Your task to perform on an android device: Check the weather Image 0: 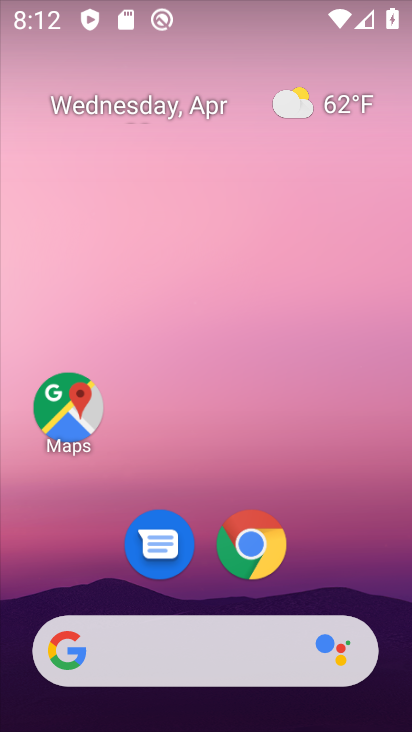
Step 0: click (265, 539)
Your task to perform on an android device: Check the weather Image 1: 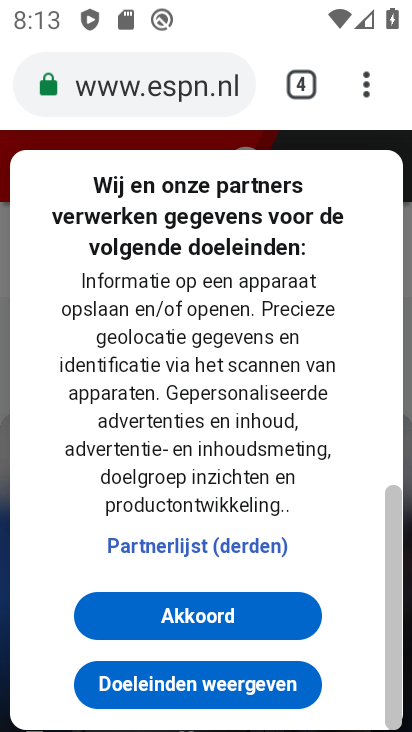
Step 1: click (307, 91)
Your task to perform on an android device: Check the weather Image 2: 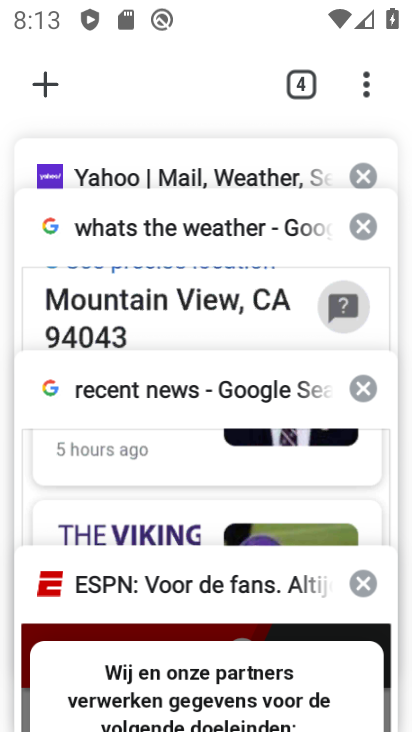
Step 2: click (38, 80)
Your task to perform on an android device: Check the weather Image 3: 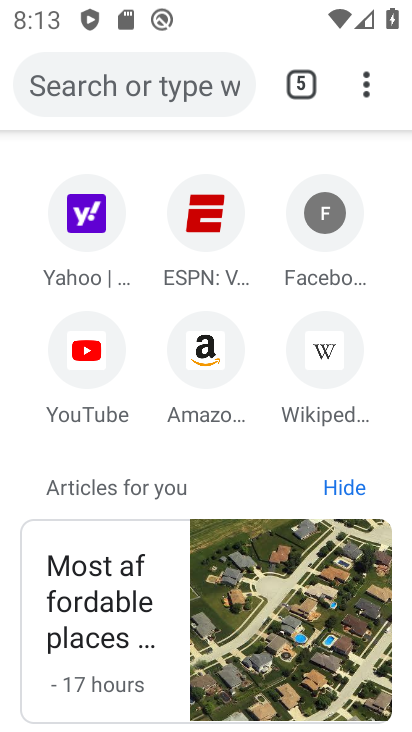
Step 3: click (146, 91)
Your task to perform on an android device: Check the weather Image 4: 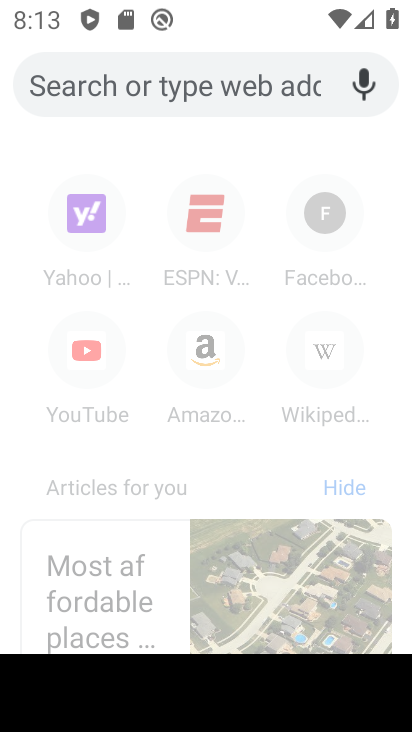
Step 4: type "weather"
Your task to perform on an android device: Check the weather Image 5: 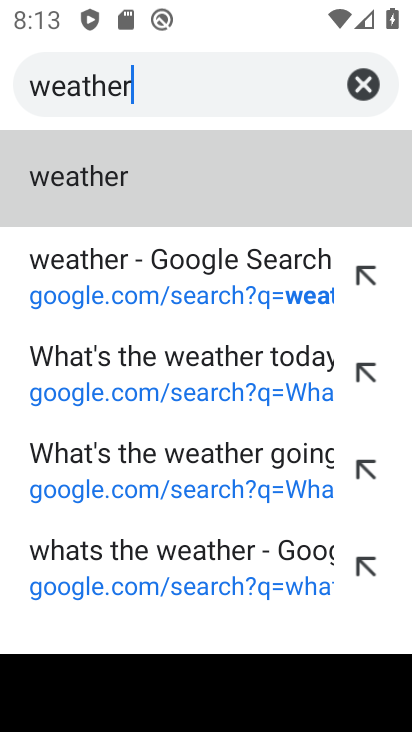
Step 5: click (105, 188)
Your task to perform on an android device: Check the weather Image 6: 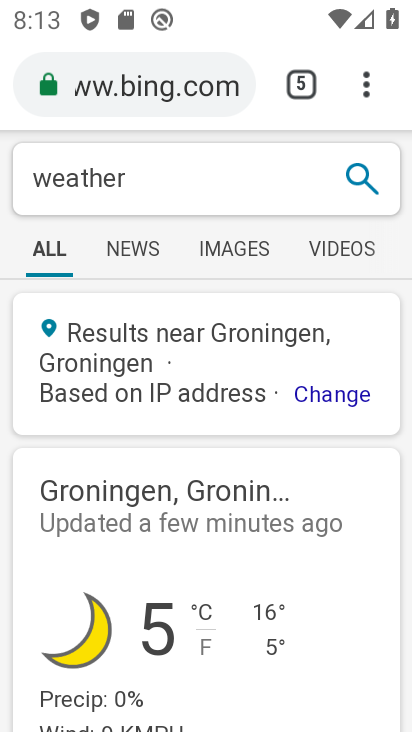
Step 6: drag from (223, 669) to (234, 299)
Your task to perform on an android device: Check the weather Image 7: 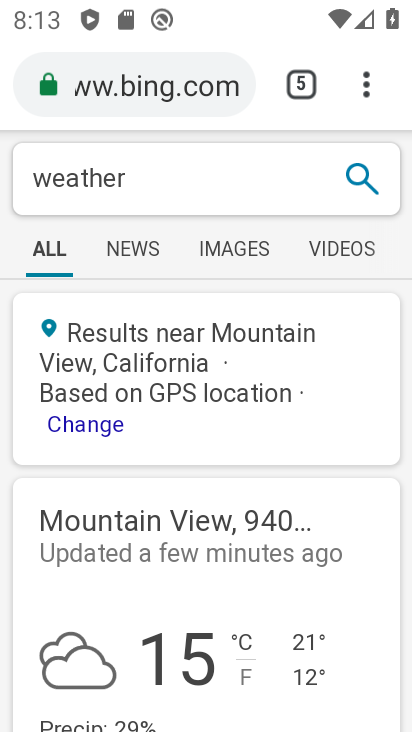
Step 7: drag from (368, 548) to (339, 280)
Your task to perform on an android device: Check the weather Image 8: 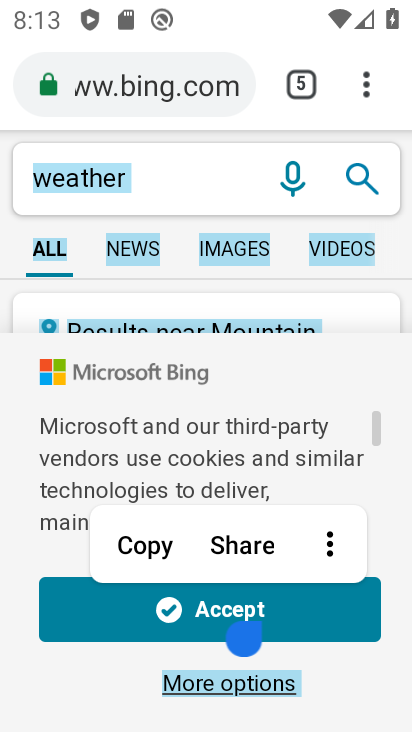
Step 8: drag from (395, 289) to (398, 120)
Your task to perform on an android device: Check the weather Image 9: 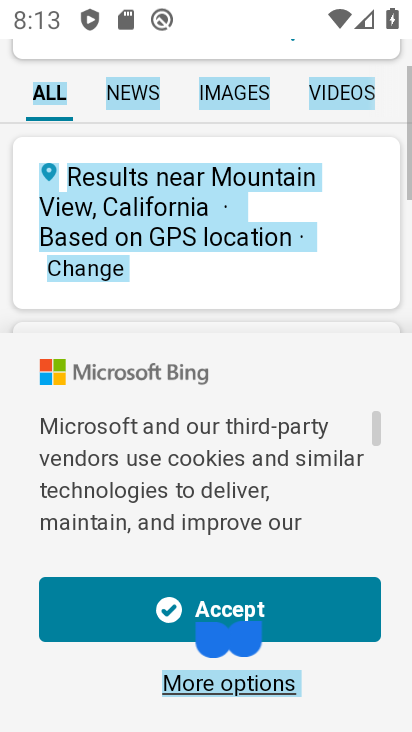
Step 9: drag from (302, 326) to (277, 43)
Your task to perform on an android device: Check the weather Image 10: 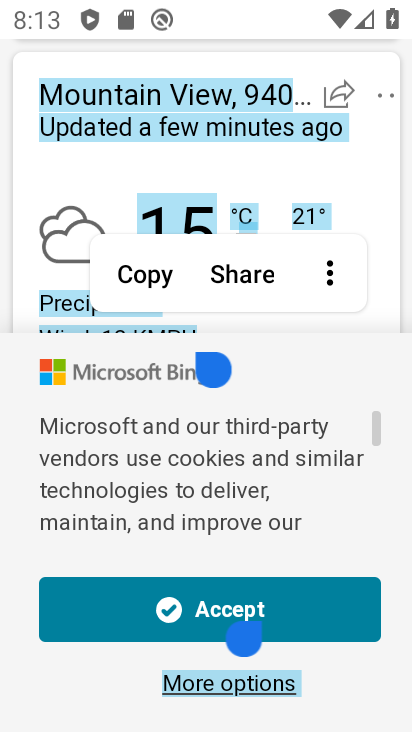
Step 10: click (364, 265)
Your task to perform on an android device: Check the weather Image 11: 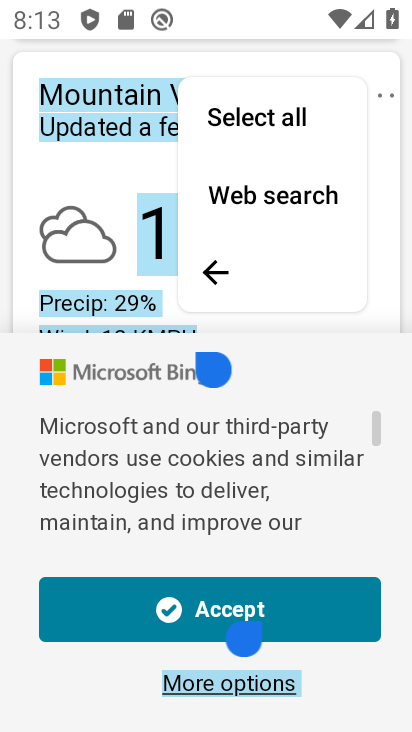
Step 11: click (377, 259)
Your task to perform on an android device: Check the weather Image 12: 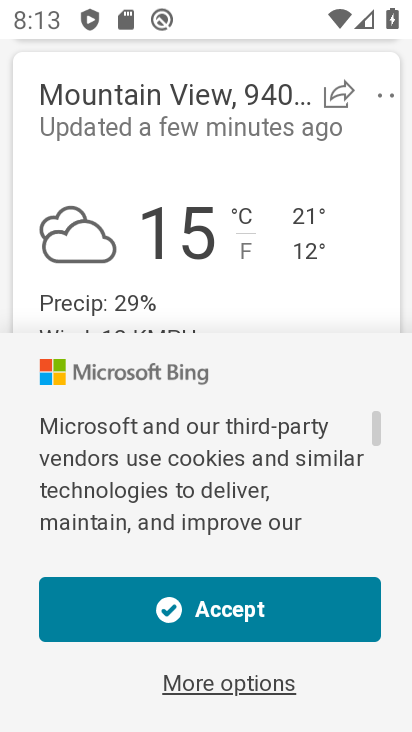
Step 12: task complete